Your task to perform on an android device: check out phone information Image 0: 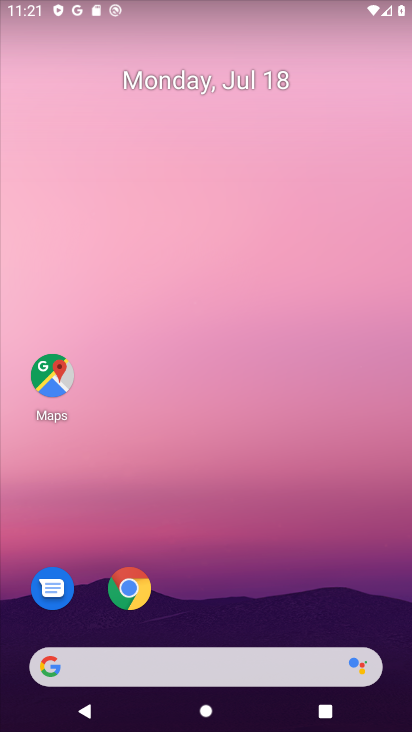
Step 0: drag from (313, 626) to (271, 228)
Your task to perform on an android device: check out phone information Image 1: 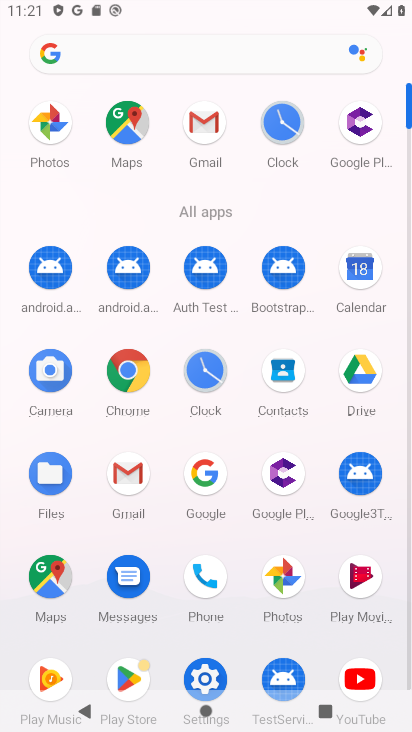
Step 1: click (205, 678)
Your task to perform on an android device: check out phone information Image 2: 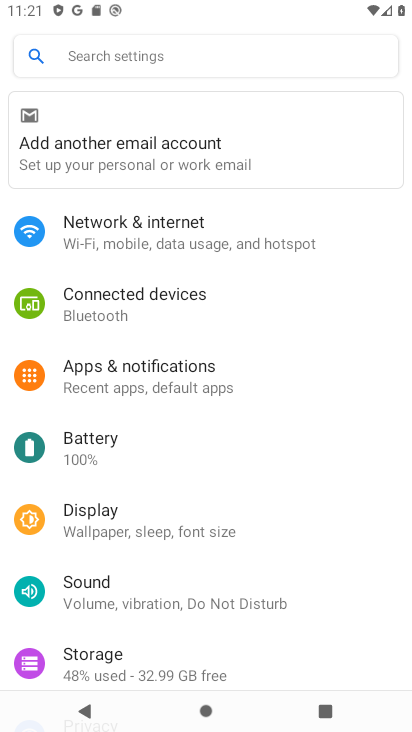
Step 2: drag from (319, 657) to (314, 174)
Your task to perform on an android device: check out phone information Image 3: 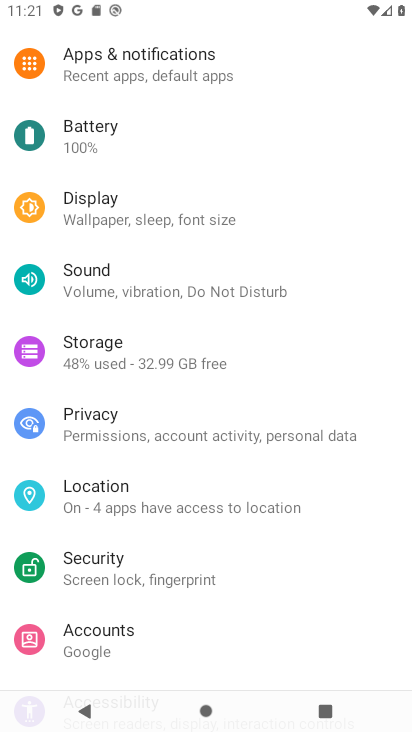
Step 3: drag from (319, 600) to (276, 137)
Your task to perform on an android device: check out phone information Image 4: 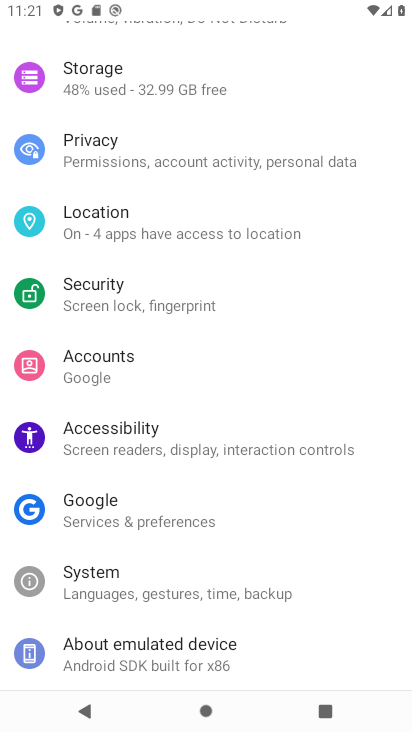
Step 4: click (276, 662)
Your task to perform on an android device: check out phone information Image 5: 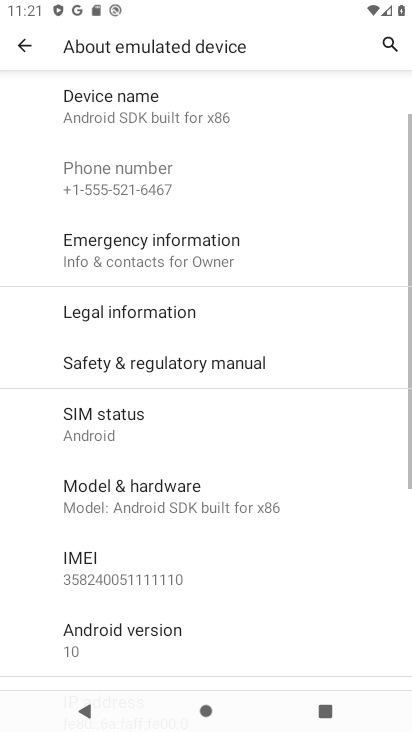
Step 5: task complete